Your task to perform on an android device: turn vacation reply on in the gmail app Image 0: 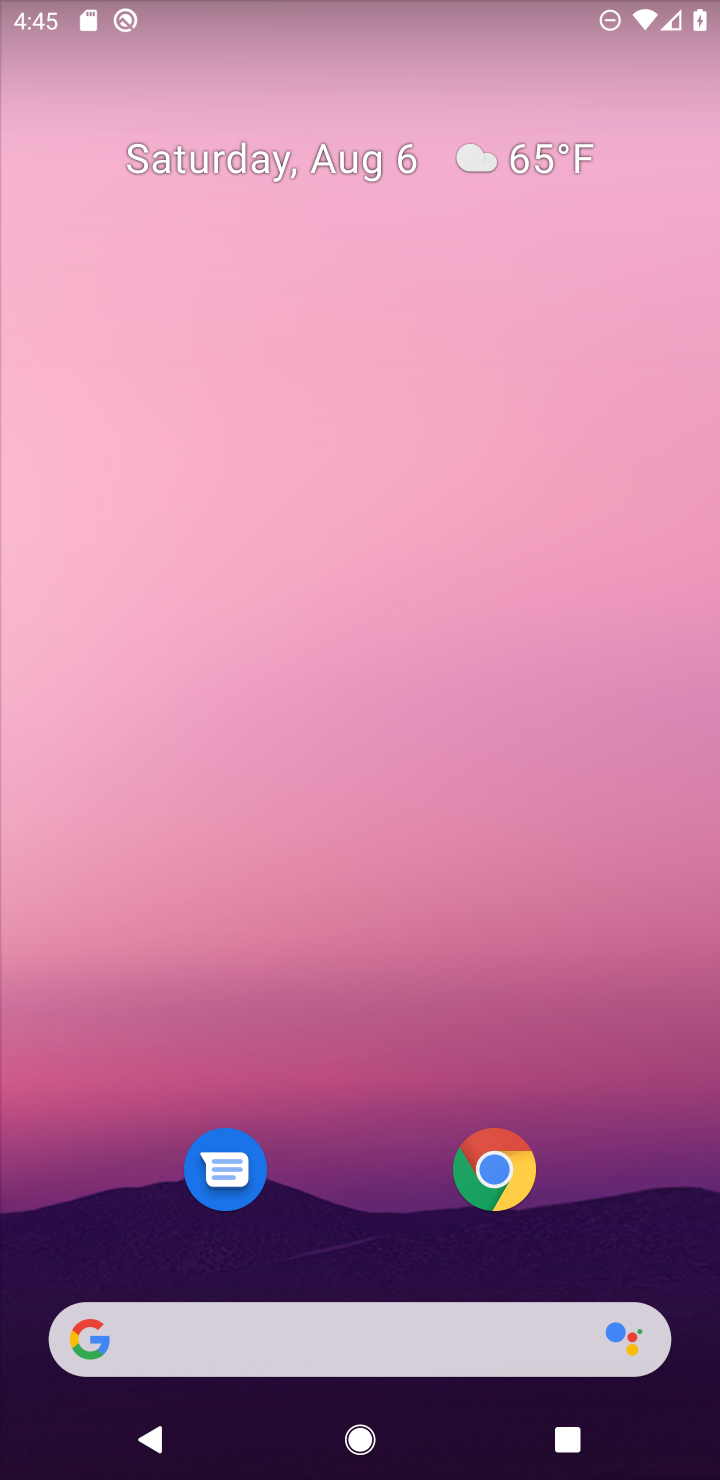
Step 0: drag from (350, 1189) to (324, 343)
Your task to perform on an android device: turn vacation reply on in the gmail app Image 1: 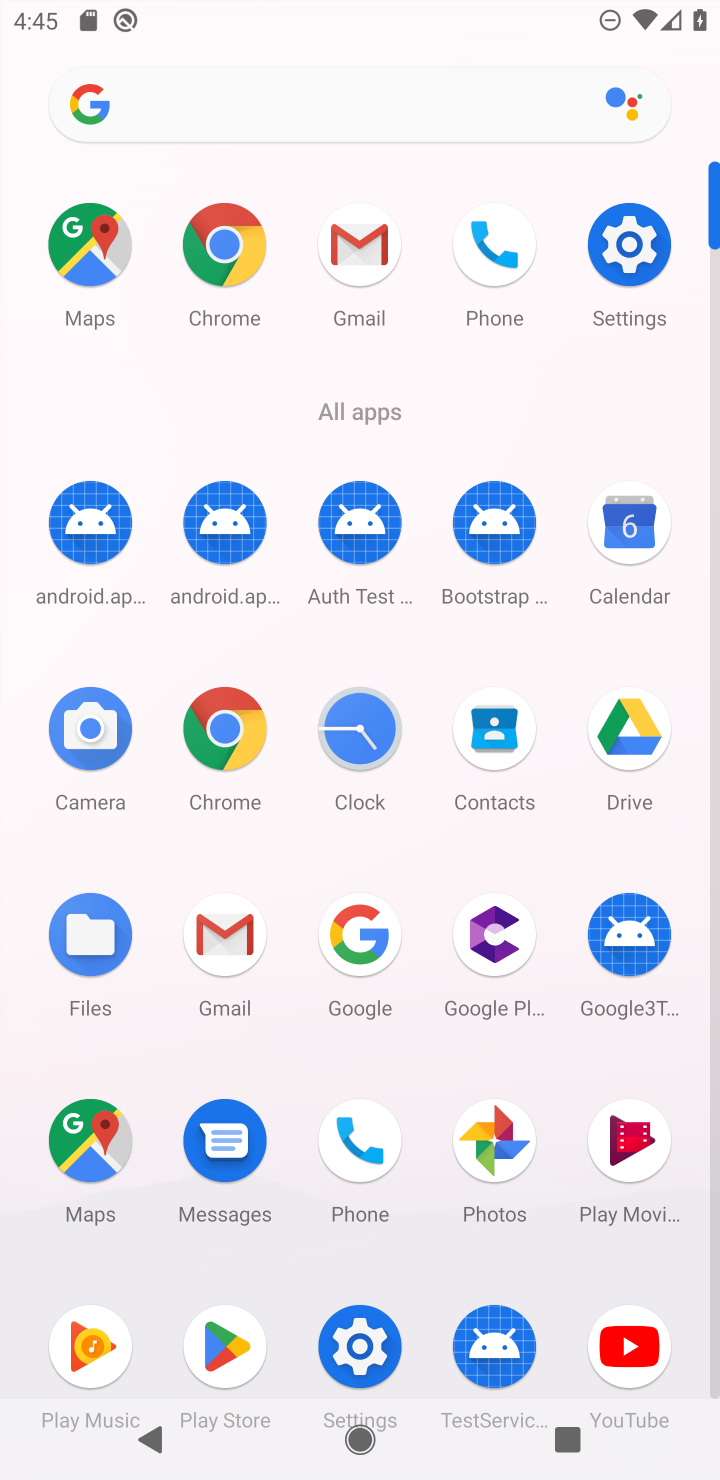
Step 1: click (361, 249)
Your task to perform on an android device: turn vacation reply on in the gmail app Image 2: 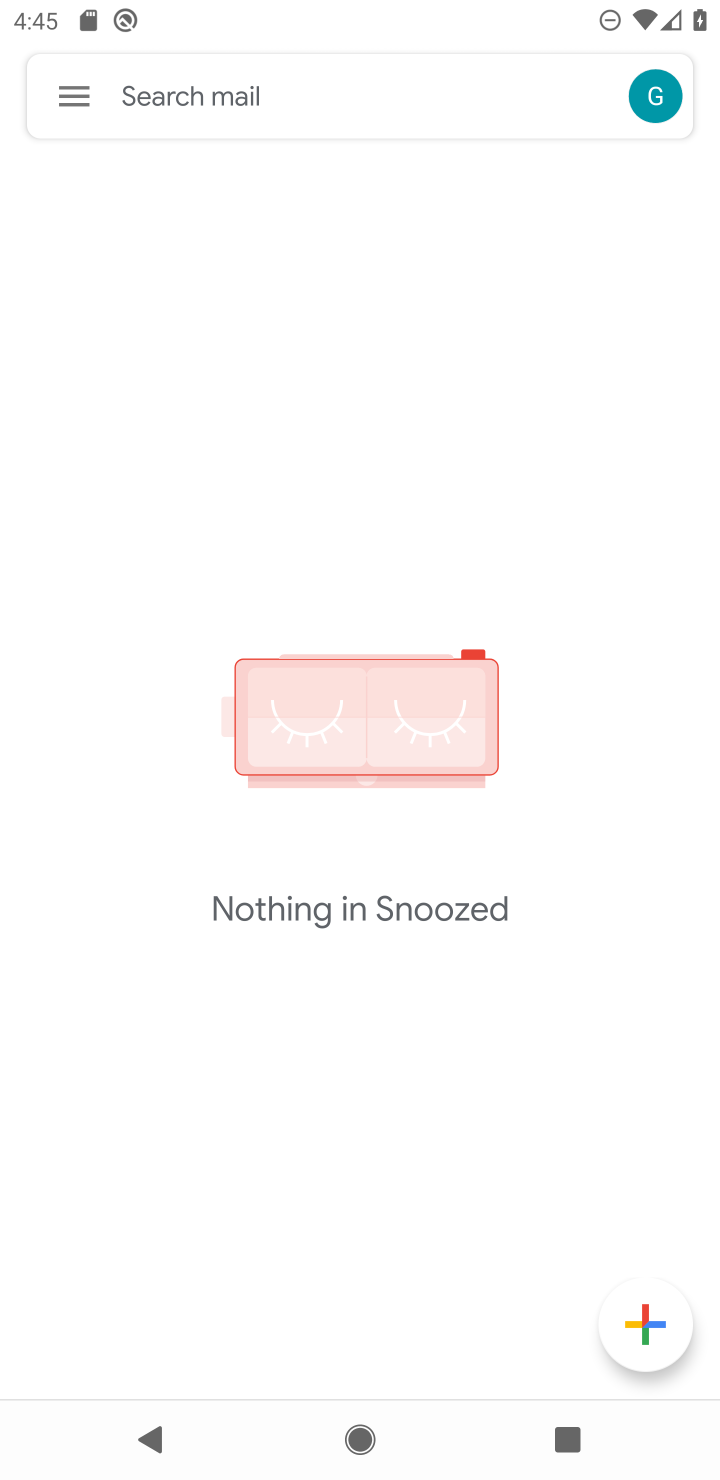
Step 2: click (66, 97)
Your task to perform on an android device: turn vacation reply on in the gmail app Image 3: 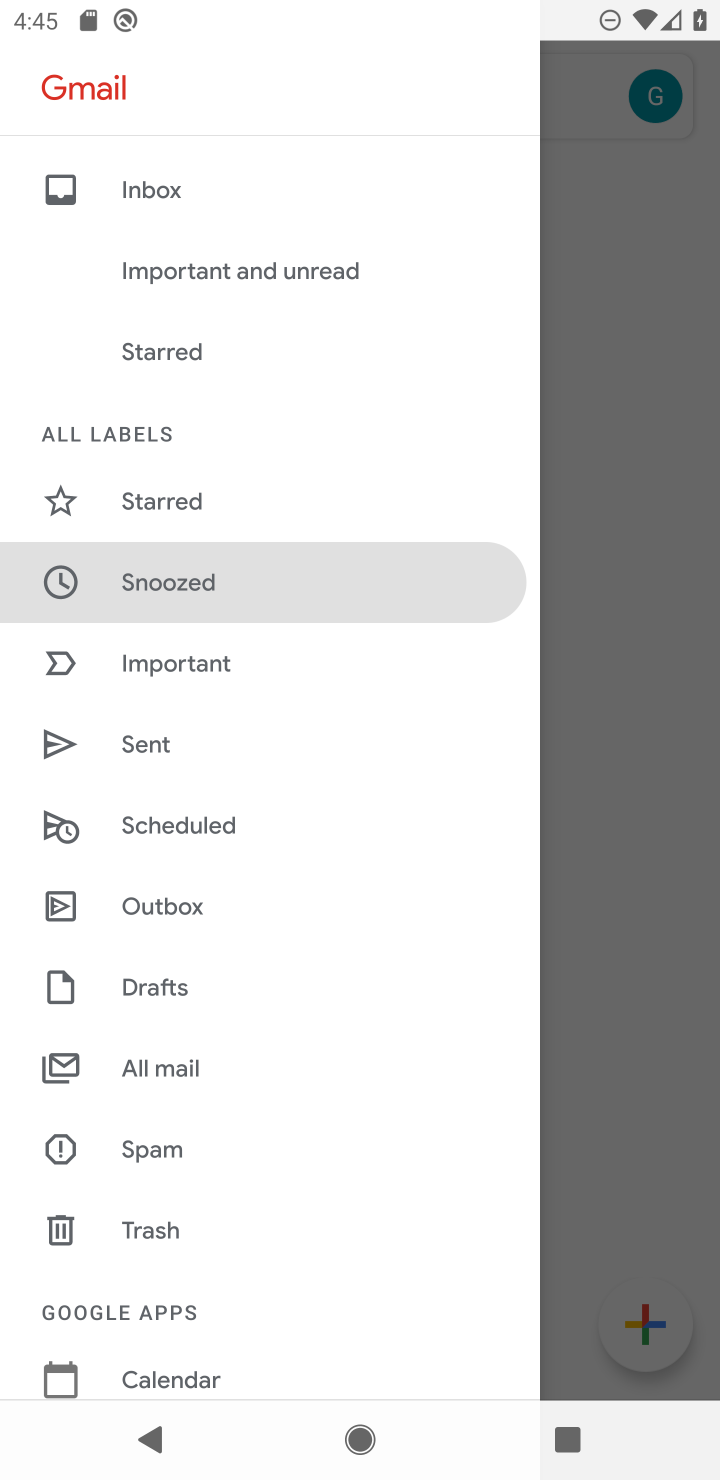
Step 3: drag from (288, 1067) to (225, 486)
Your task to perform on an android device: turn vacation reply on in the gmail app Image 4: 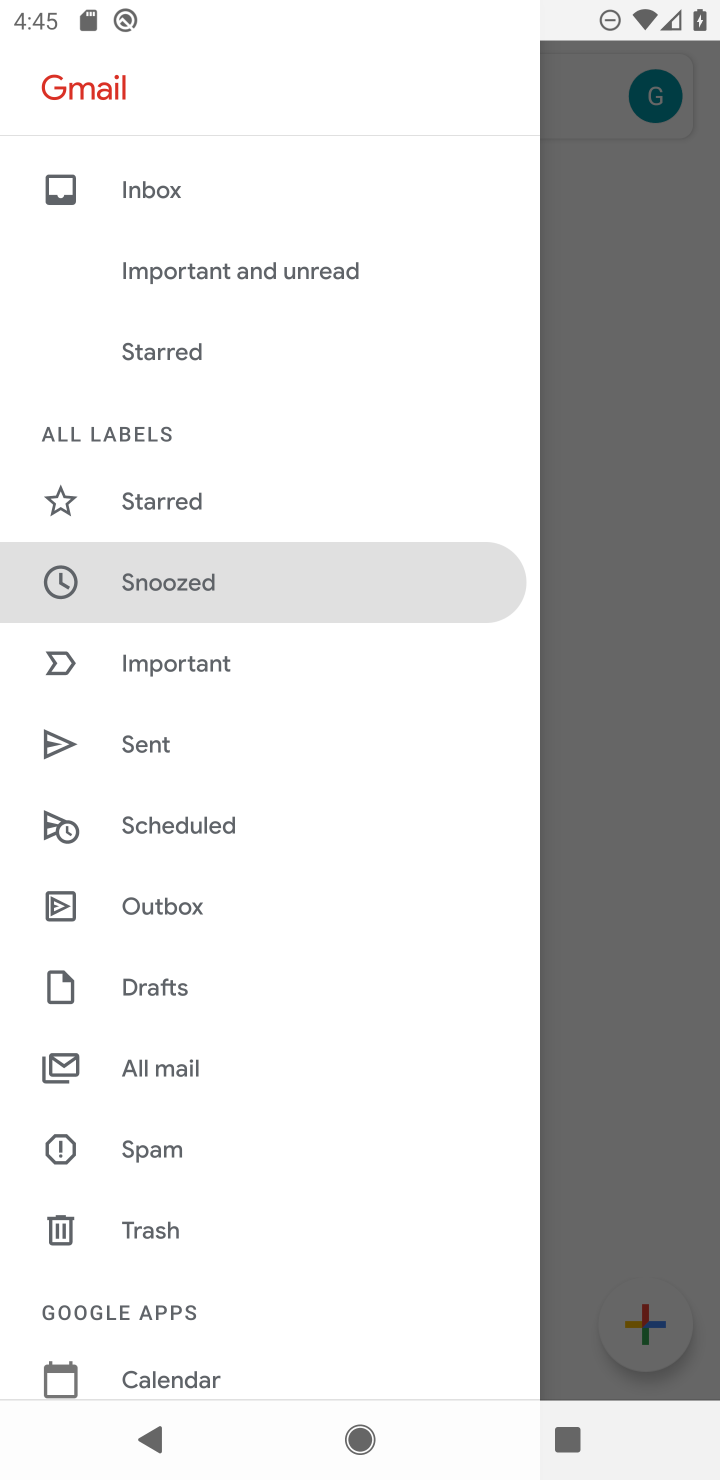
Step 4: drag from (246, 1130) to (212, 422)
Your task to perform on an android device: turn vacation reply on in the gmail app Image 5: 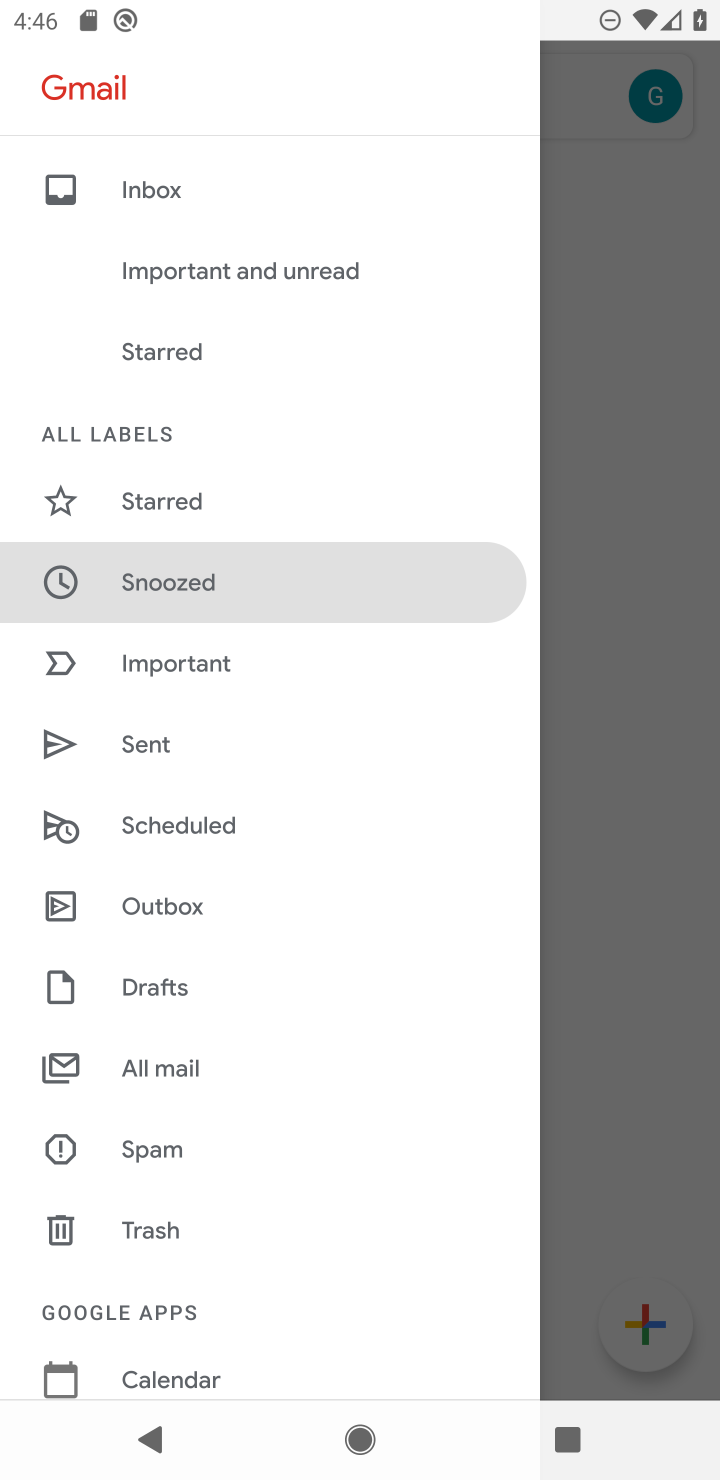
Step 5: drag from (164, 1151) to (32, 212)
Your task to perform on an android device: turn vacation reply on in the gmail app Image 6: 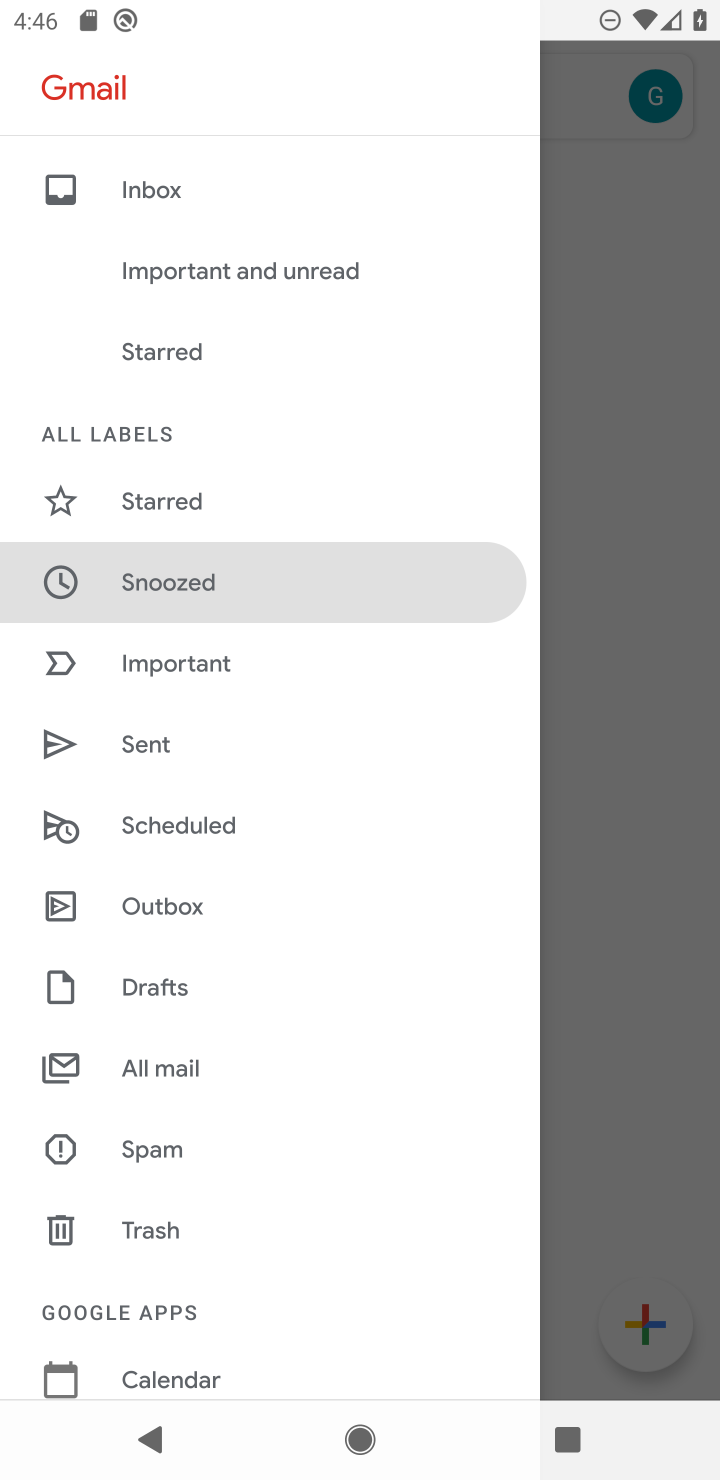
Step 6: drag from (208, 1309) to (208, 491)
Your task to perform on an android device: turn vacation reply on in the gmail app Image 7: 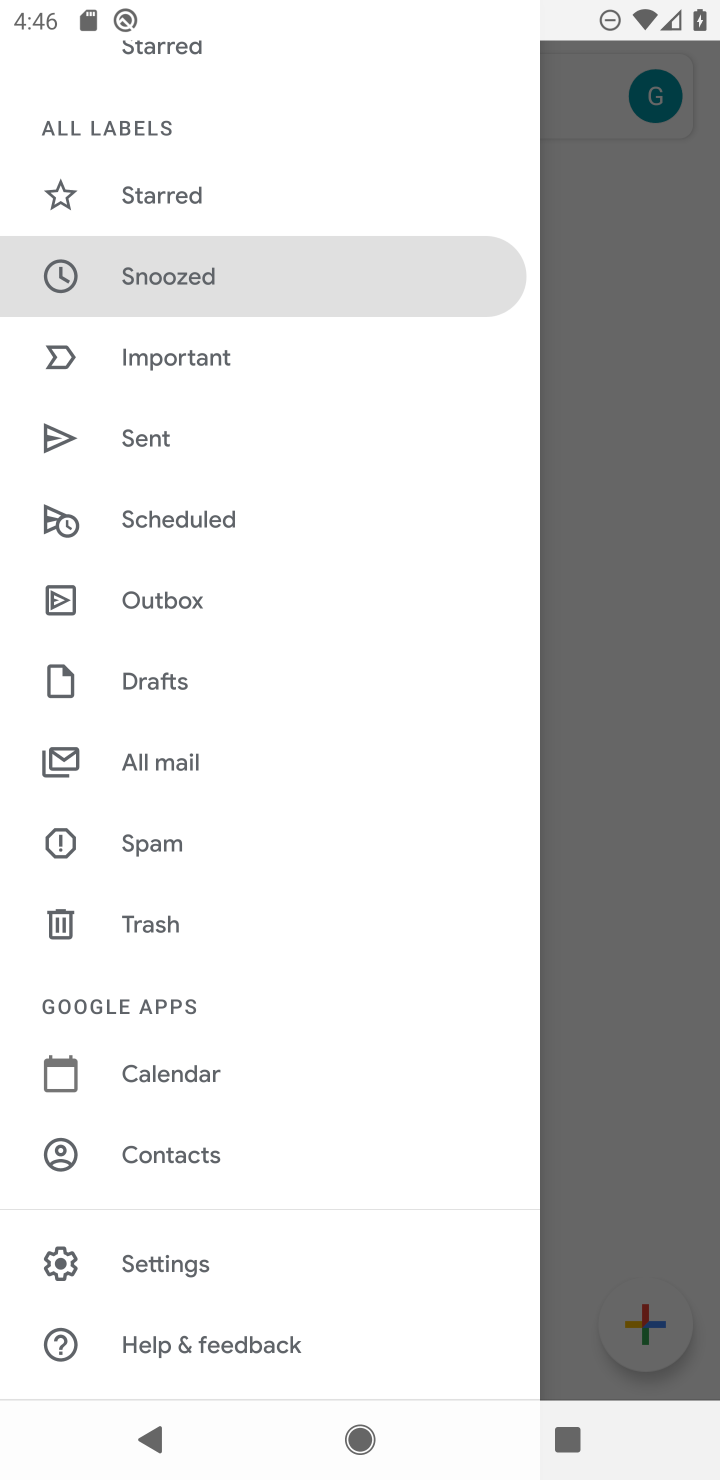
Step 7: click (155, 1250)
Your task to perform on an android device: turn vacation reply on in the gmail app Image 8: 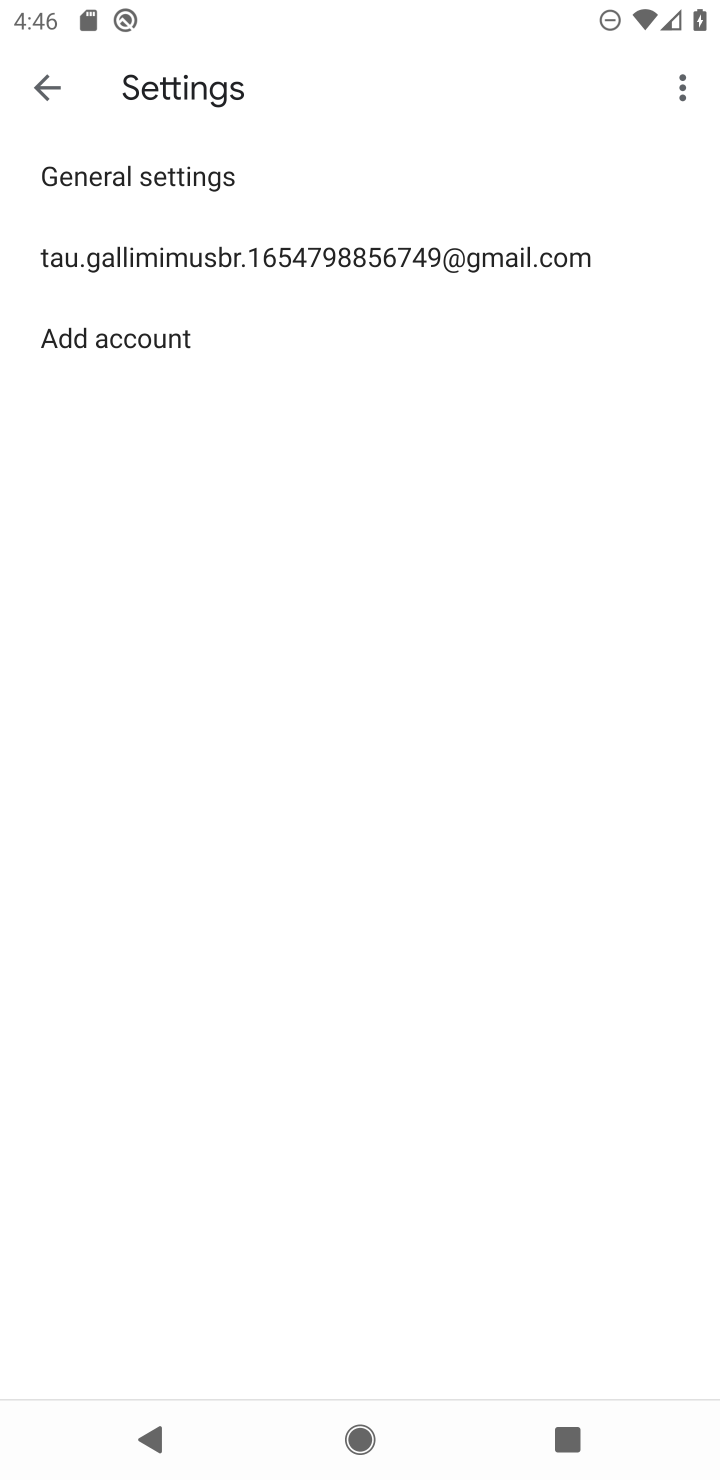
Step 8: click (182, 269)
Your task to perform on an android device: turn vacation reply on in the gmail app Image 9: 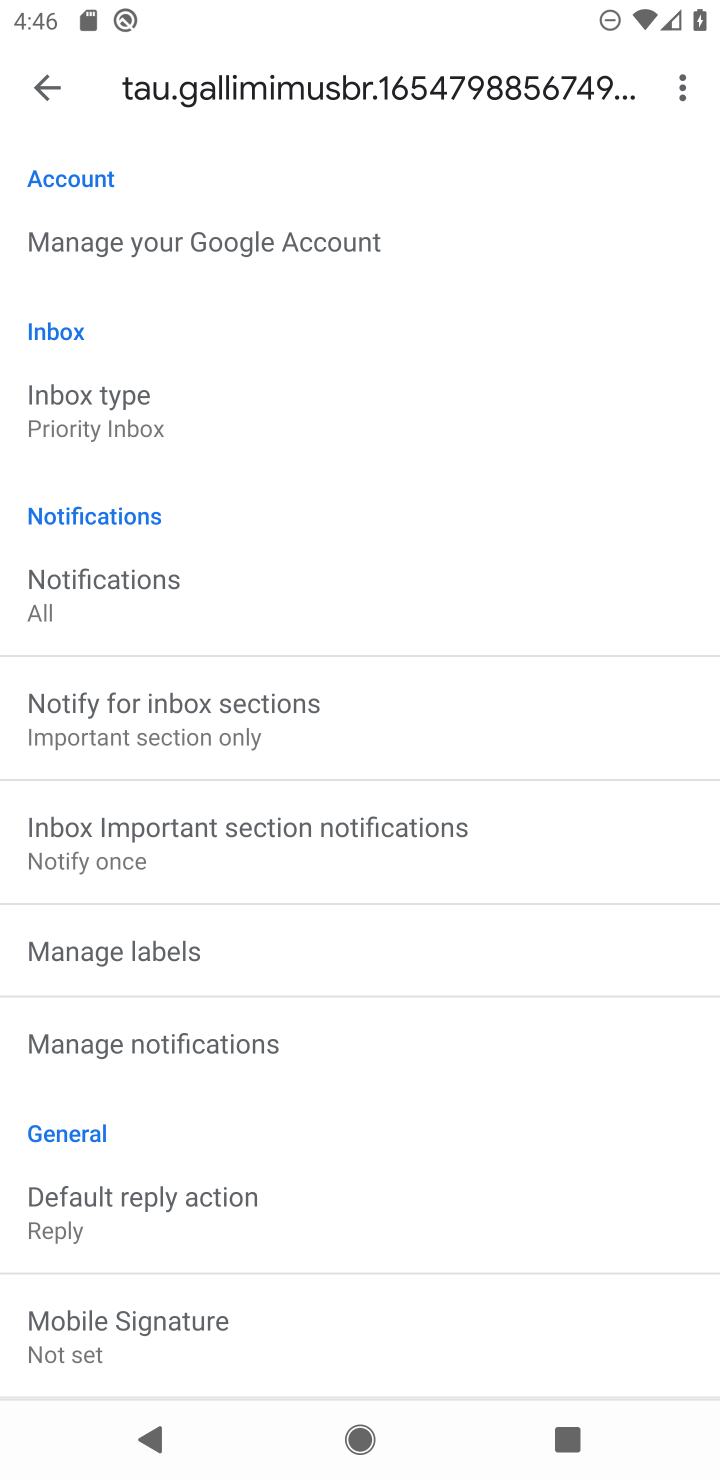
Step 9: drag from (363, 1268) to (300, 24)
Your task to perform on an android device: turn vacation reply on in the gmail app Image 10: 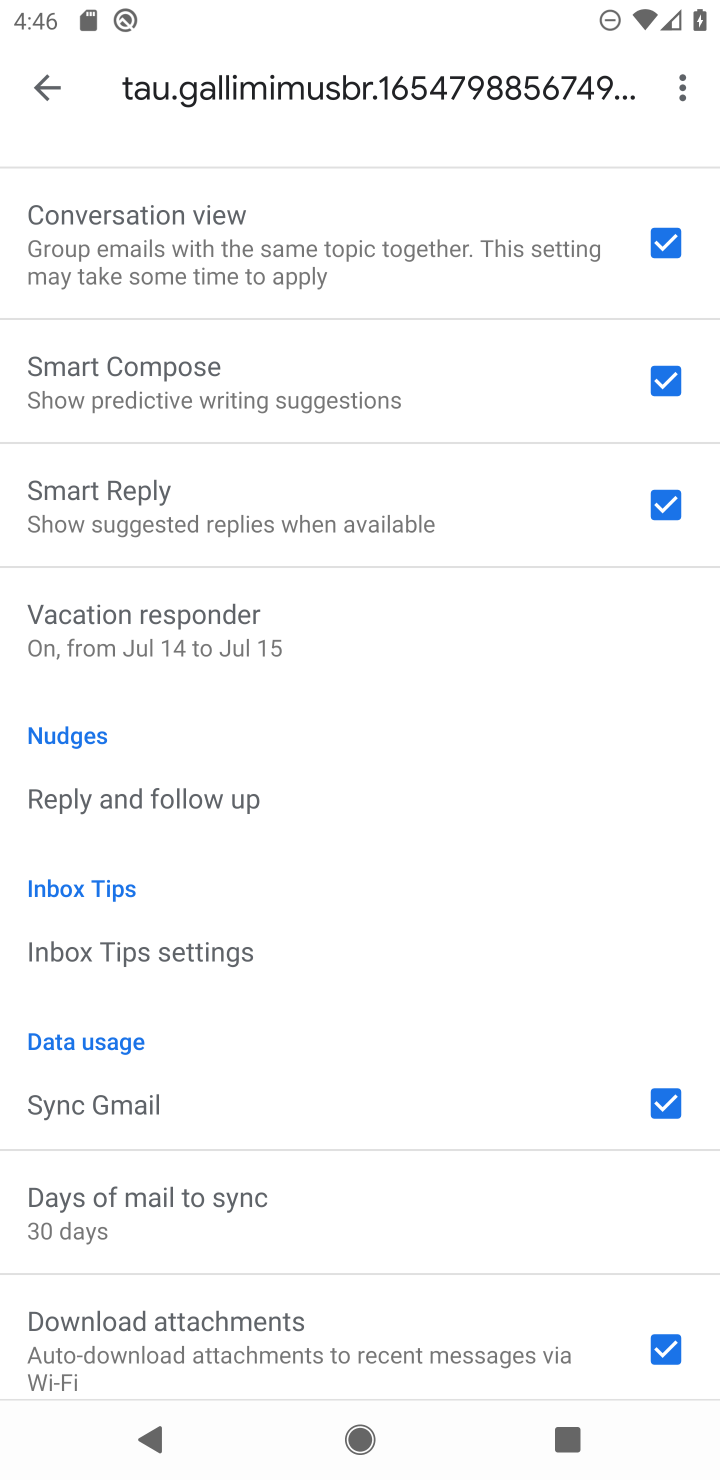
Step 10: click (364, 620)
Your task to perform on an android device: turn vacation reply on in the gmail app Image 11: 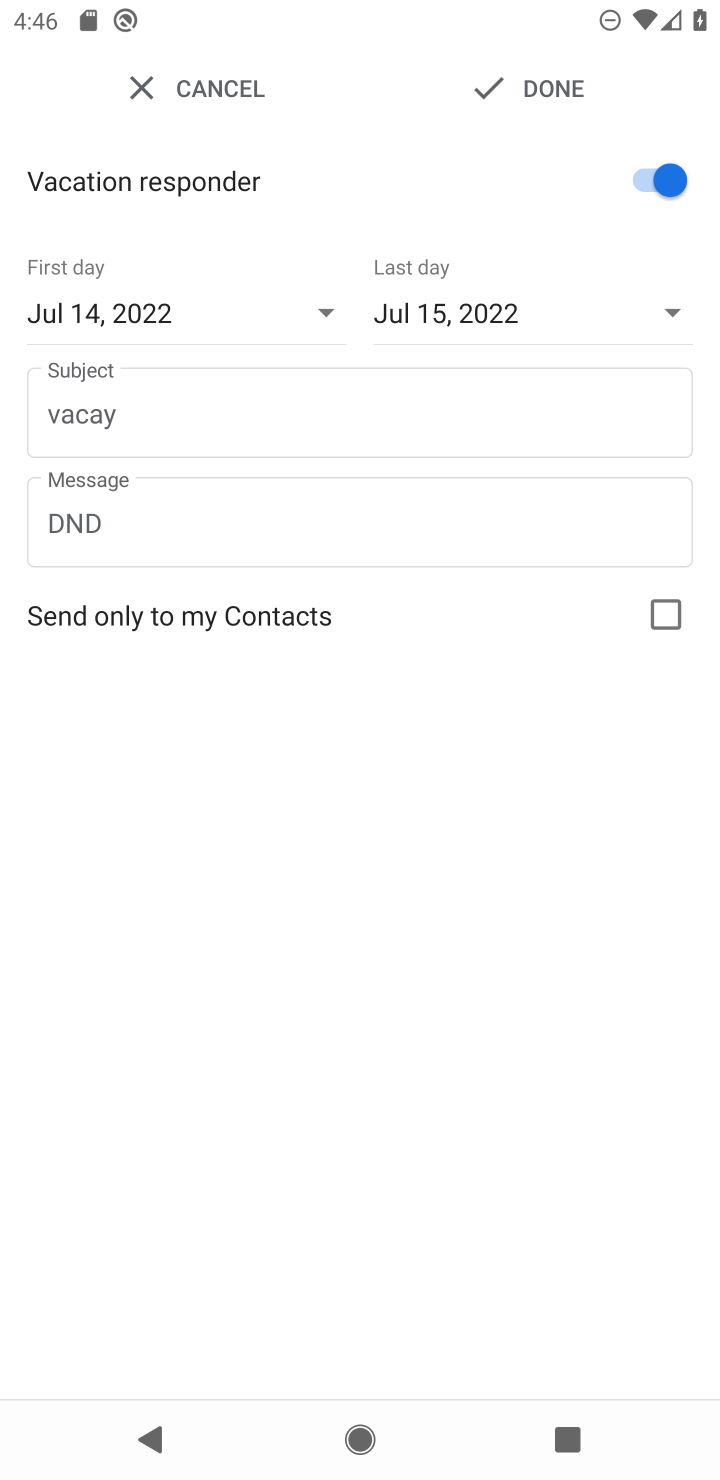
Step 11: click (541, 99)
Your task to perform on an android device: turn vacation reply on in the gmail app Image 12: 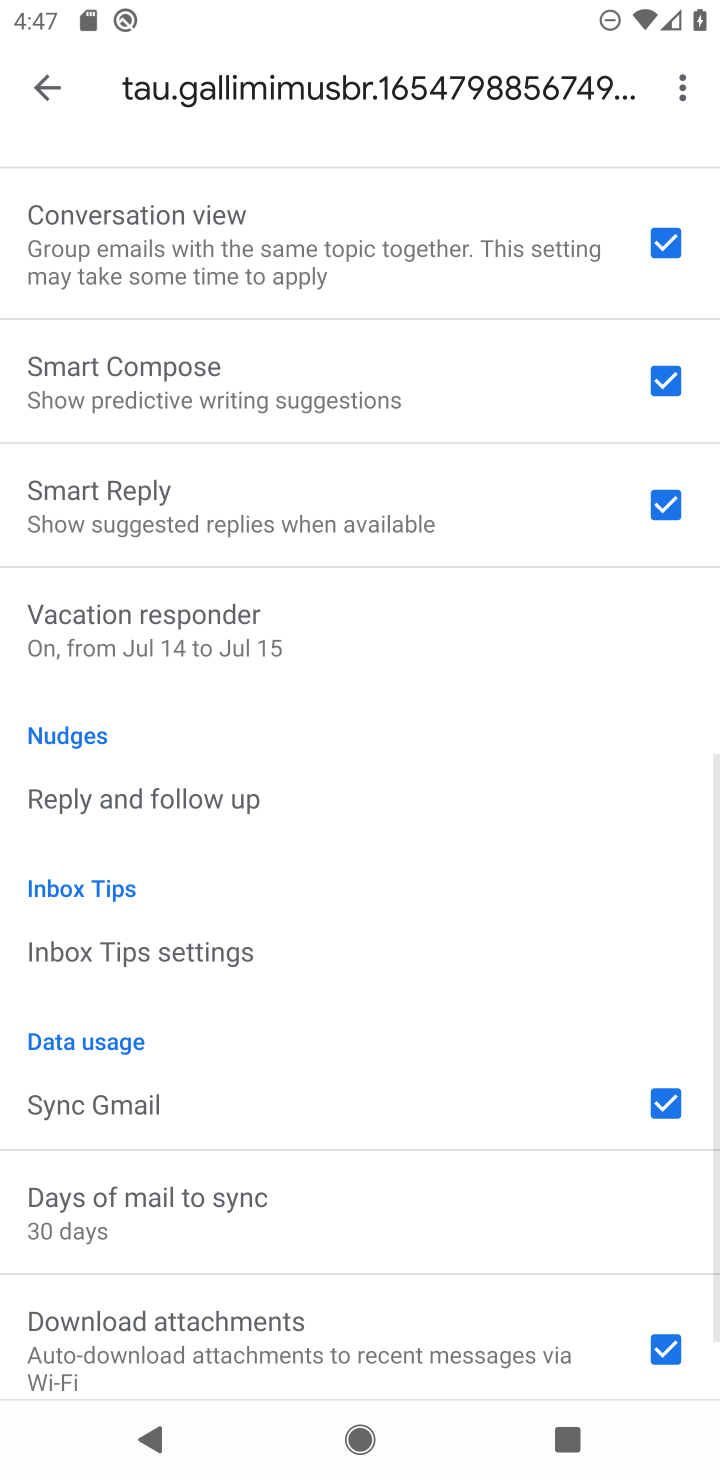
Step 12: task complete